Your task to perform on an android device: check battery use Image 0: 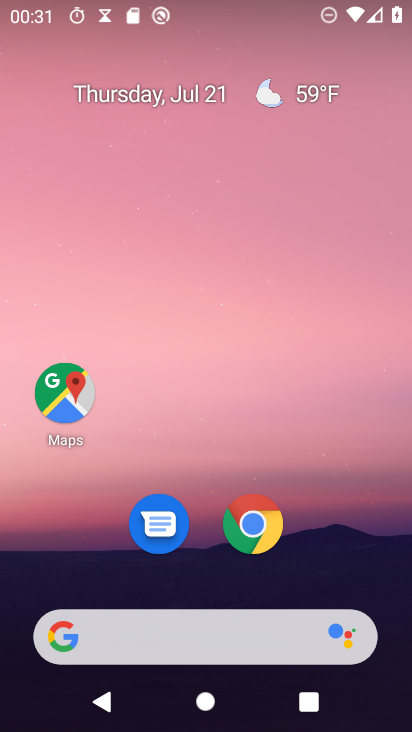
Step 0: drag from (197, 628) to (294, 133)
Your task to perform on an android device: check battery use Image 1: 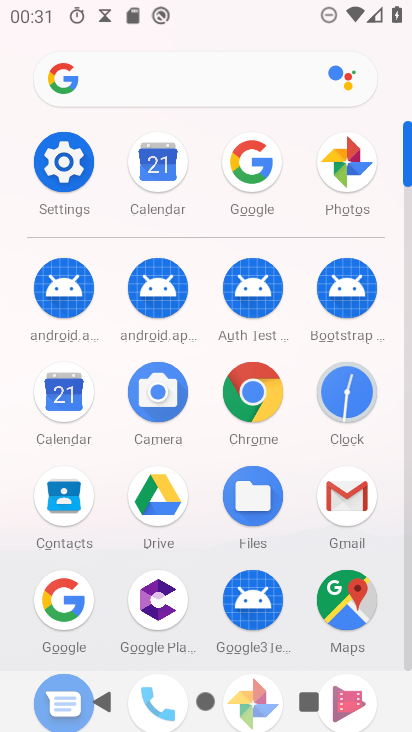
Step 1: click (67, 173)
Your task to perform on an android device: check battery use Image 2: 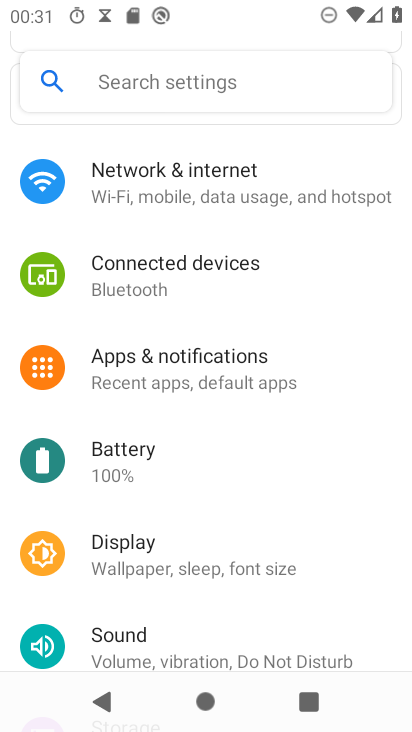
Step 2: click (124, 452)
Your task to perform on an android device: check battery use Image 3: 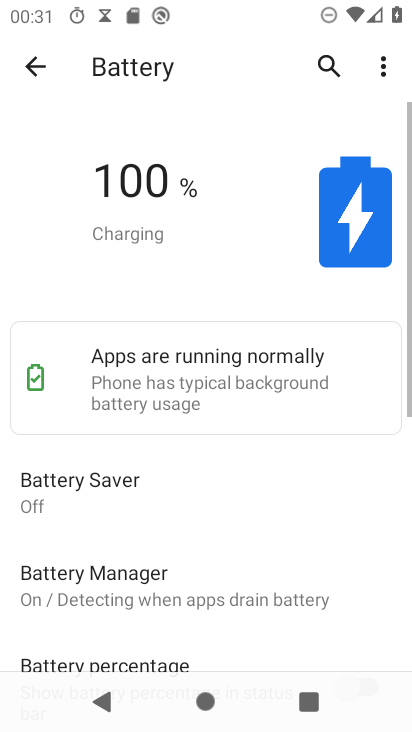
Step 3: click (385, 65)
Your task to perform on an android device: check battery use Image 4: 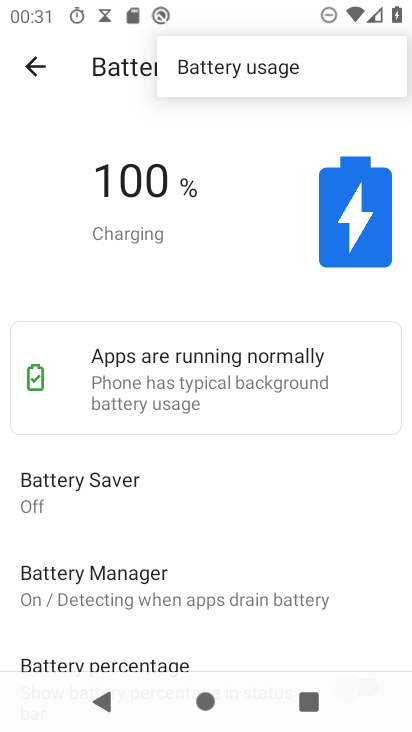
Step 4: click (279, 69)
Your task to perform on an android device: check battery use Image 5: 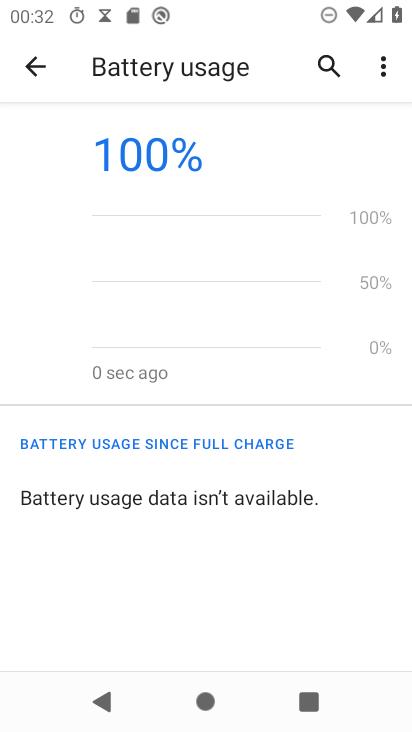
Step 5: task complete